Your task to perform on an android device: Open Yahoo.com Image 0: 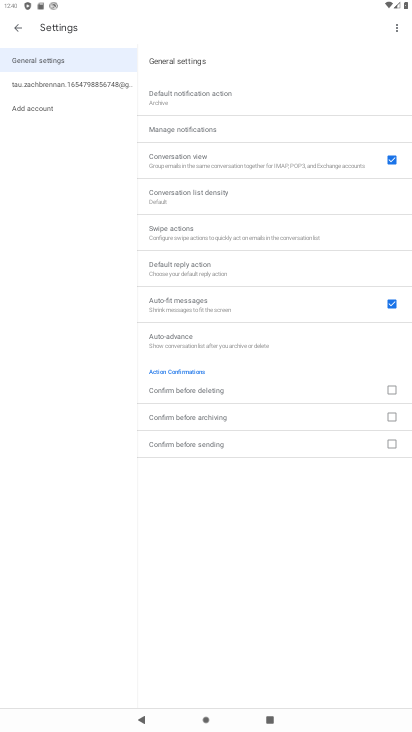
Step 0: drag from (163, 689) to (131, 383)
Your task to perform on an android device: Open Yahoo.com Image 1: 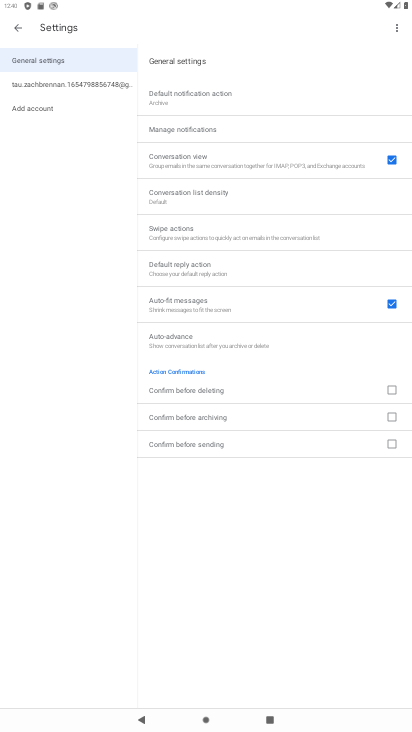
Step 1: press home button
Your task to perform on an android device: Open Yahoo.com Image 2: 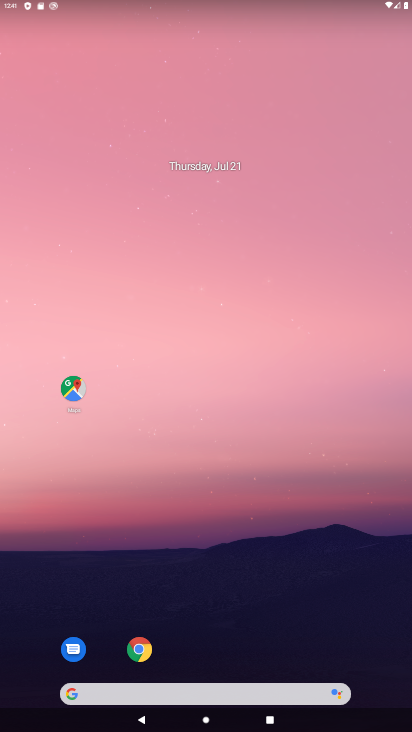
Step 2: click (147, 653)
Your task to perform on an android device: Open Yahoo.com Image 3: 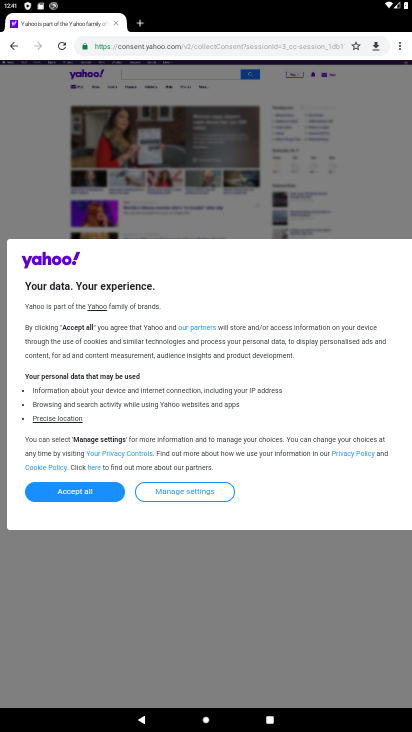
Step 3: task complete